Your task to perform on an android device: allow notifications from all sites in the chrome app Image 0: 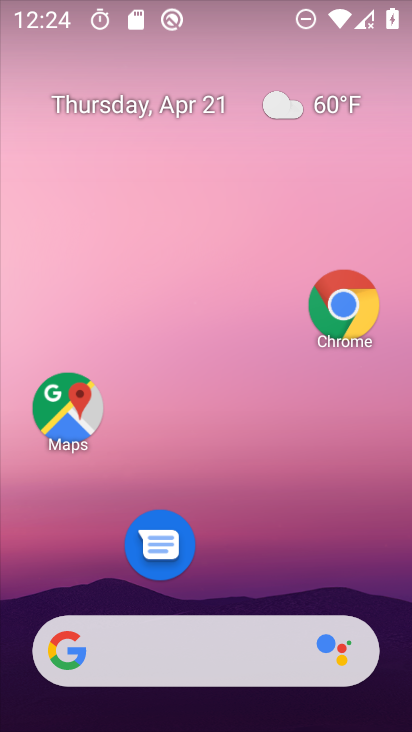
Step 0: drag from (285, 588) to (315, 96)
Your task to perform on an android device: allow notifications from all sites in the chrome app Image 1: 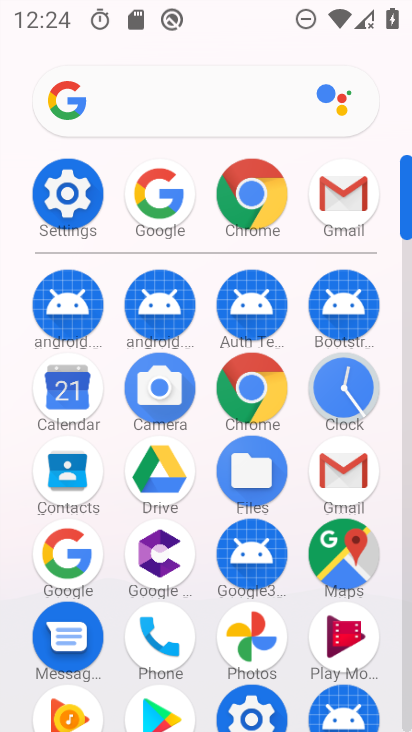
Step 1: click (265, 202)
Your task to perform on an android device: allow notifications from all sites in the chrome app Image 2: 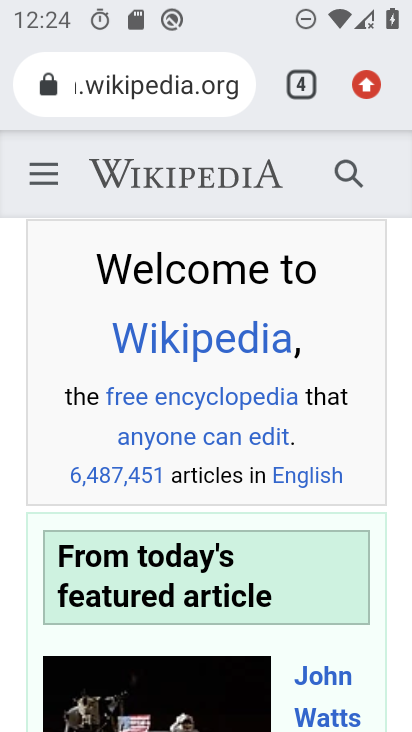
Step 2: press home button
Your task to perform on an android device: allow notifications from all sites in the chrome app Image 3: 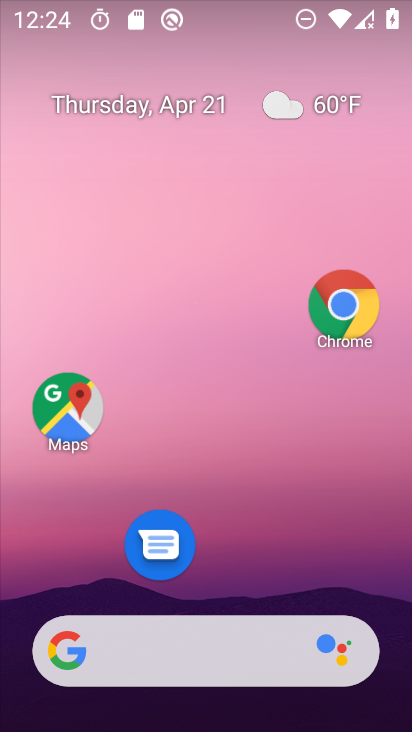
Step 3: click (355, 323)
Your task to perform on an android device: allow notifications from all sites in the chrome app Image 4: 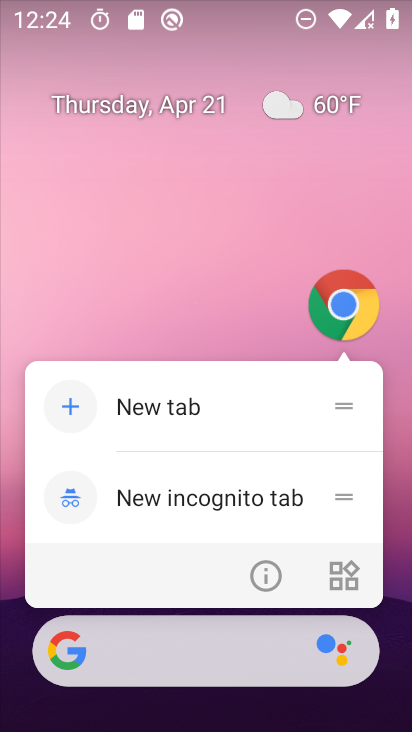
Step 4: click (340, 304)
Your task to perform on an android device: allow notifications from all sites in the chrome app Image 5: 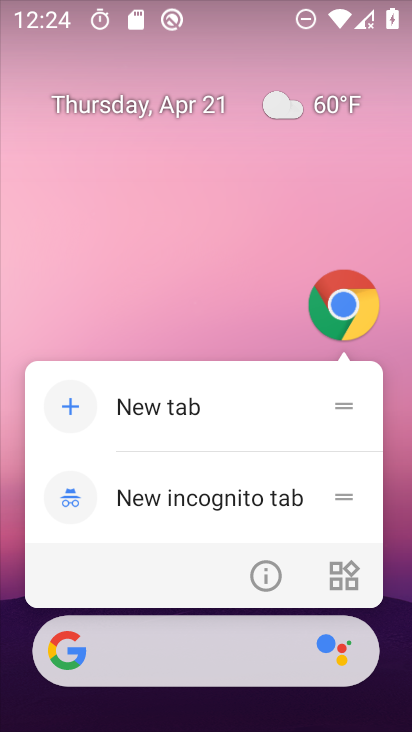
Step 5: click (340, 304)
Your task to perform on an android device: allow notifications from all sites in the chrome app Image 6: 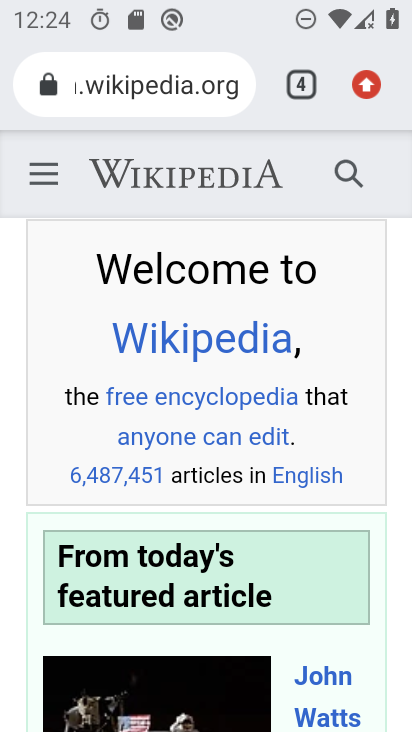
Step 6: click (372, 85)
Your task to perform on an android device: allow notifications from all sites in the chrome app Image 7: 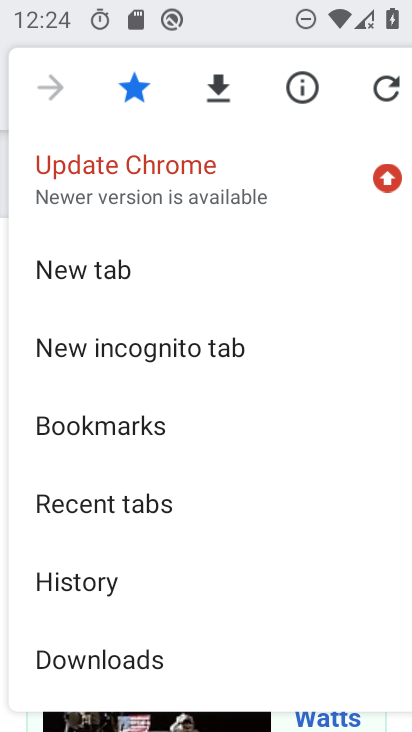
Step 7: drag from (209, 523) to (206, 129)
Your task to perform on an android device: allow notifications from all sites in the chrome app Image 8: 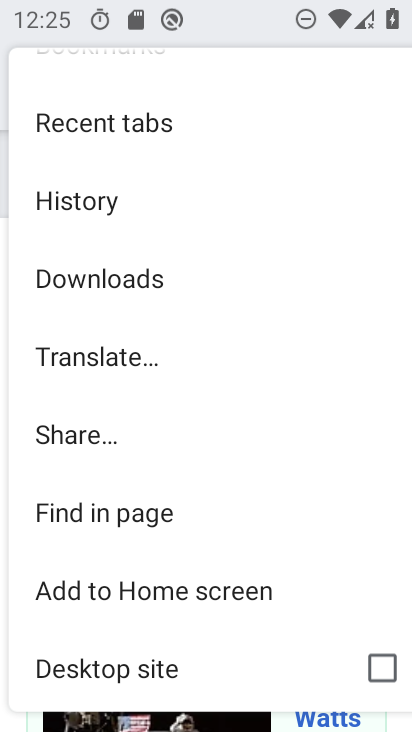
Step 8: drag from (205, 513) to (208, 329)
Your task to perform on an android device: allow notifications from all sites in the chrome app Image 9: 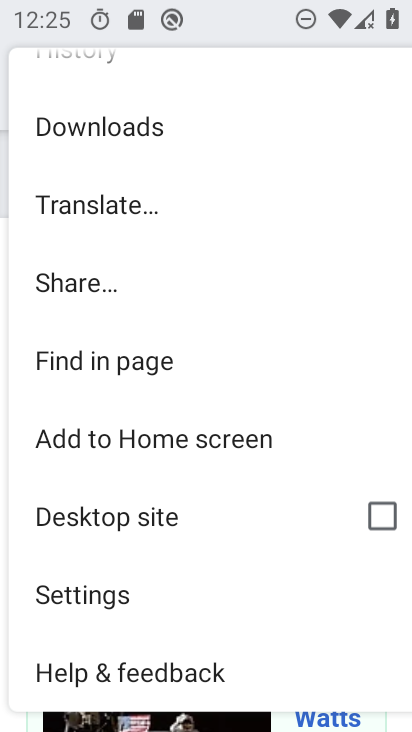
Step 9: drag from (207, 329) to (199, 497)
Your task to perform on an android device: allow notifications from all sites in the chrome app Image 10: 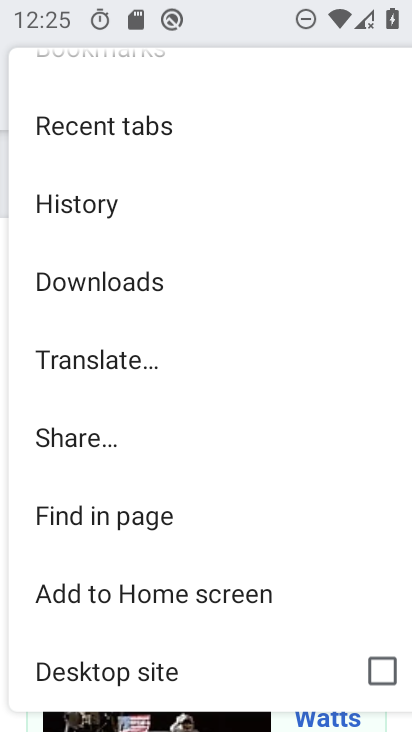
Step 10: drag from (185, 514) to (202, 271)
Your task to perform on an android device: allow notifications from all sites in the chrome app Image 11: 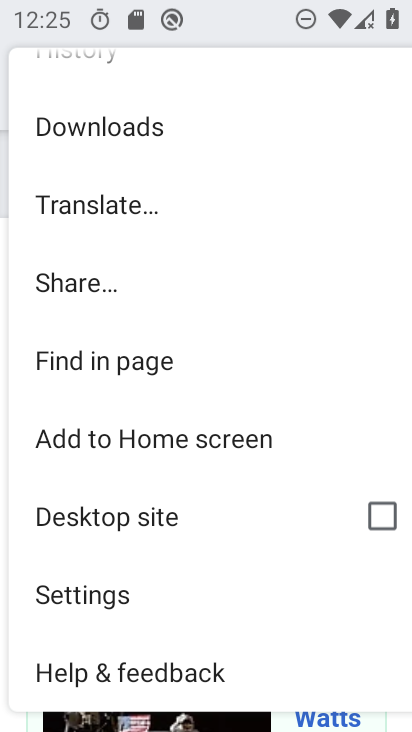
Step 11: click (190, 595)
Your task to perform on an android device: allow notifications from all sites in the chrome app Image 12: 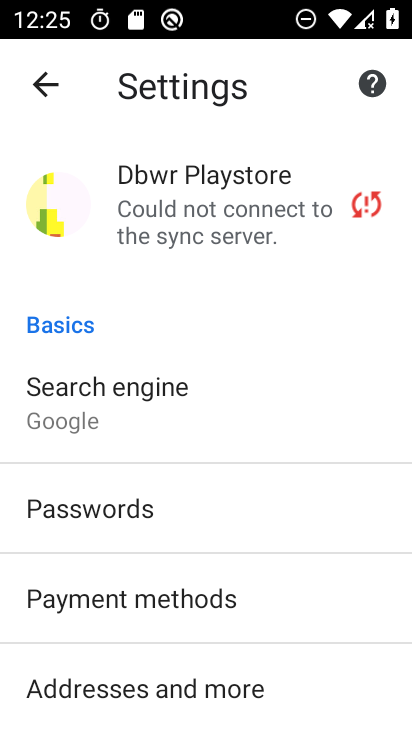
Step 12: drag from (192, 588) to (193, 316)
Your task to perform on an android device: allow notifications from all sites in the chrome app Image 13: 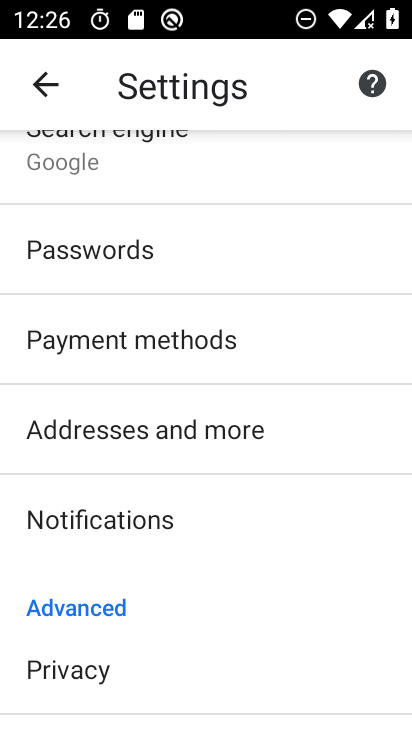
Step 13: click (178, 521)
Your task to perform on an android device: allow notifications from all sites in the chrome app Image 14: 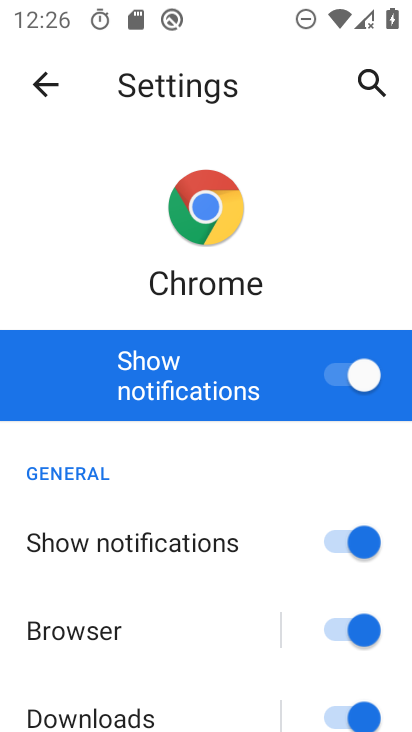
Step 14: task complete